Your task to perform on an android device: delete location history Image 0: 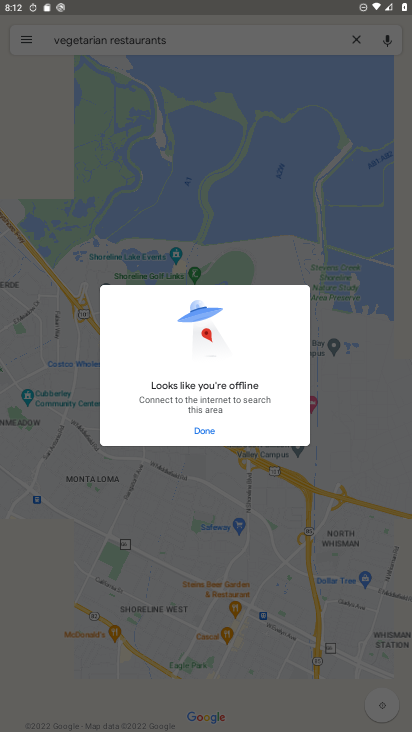
Step 0: press home button
Your task to perform on an android device: delete location history Image 1: 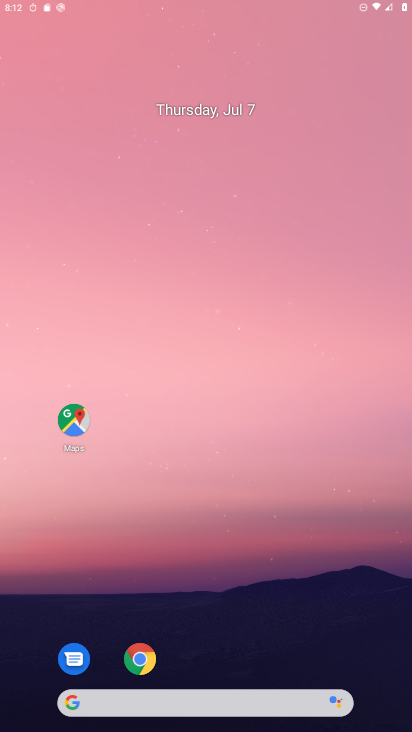
Step 1: drag from (385, 671) to (228, 15)
Your task to perform on an android device: delete location history Image 2: 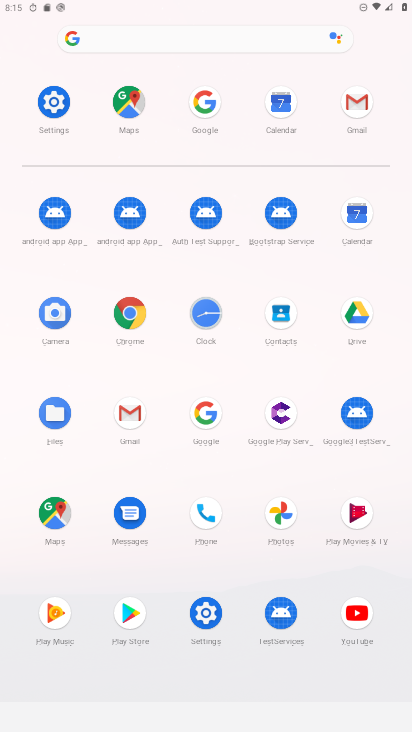
Step 2: click (201, 606)
Your task to perform on an android device: delete location history Image 3: 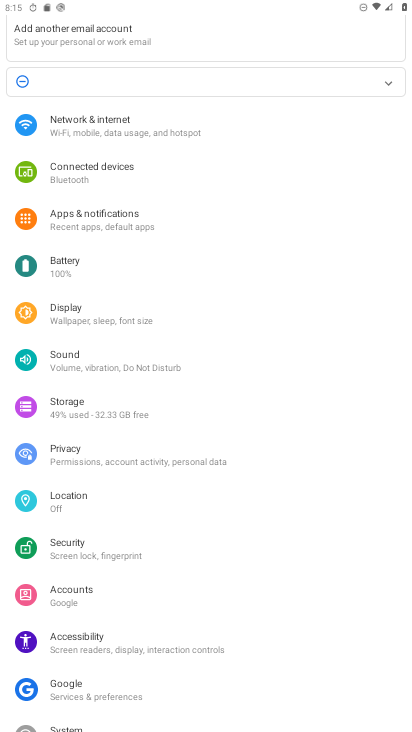
Step 3: click (63, 493)
Your task to perform on an android device: delete location history Image 4: 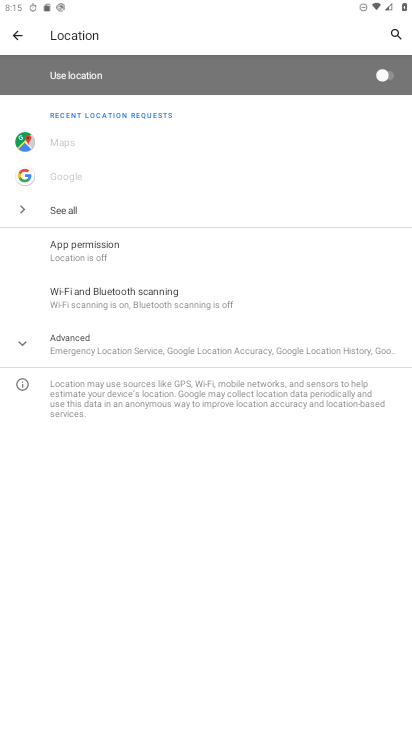
Step 4: click (62, 349)
Your task to perform on an android device: delete location history Image 5: 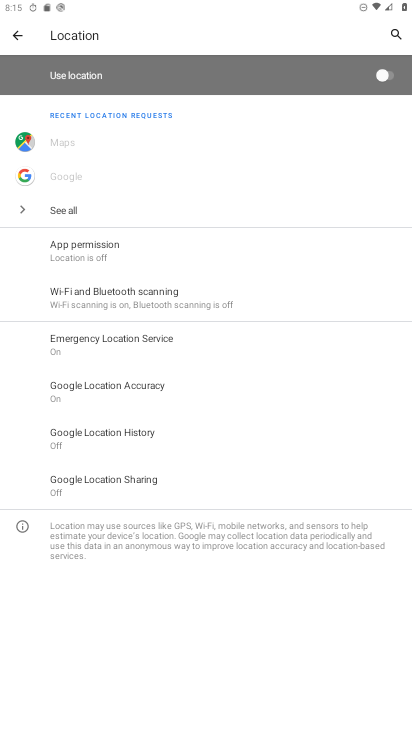
Step 5: click (144, 431)
Your task to perform on an android device: delete location history Image 6: 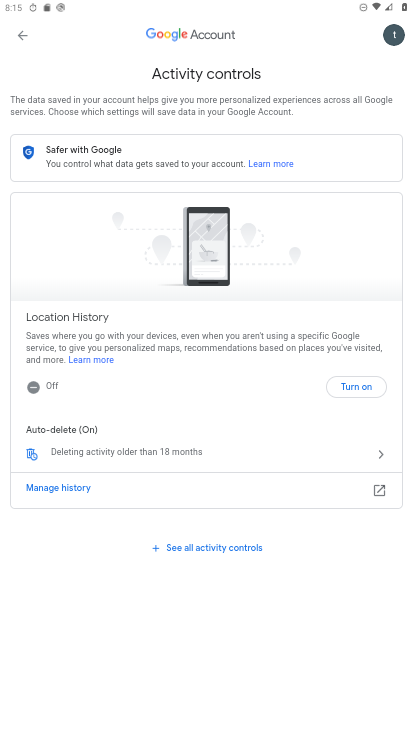
Step 6: click (127, 450)
Your task to perform on an android device: delete location history Image 7: 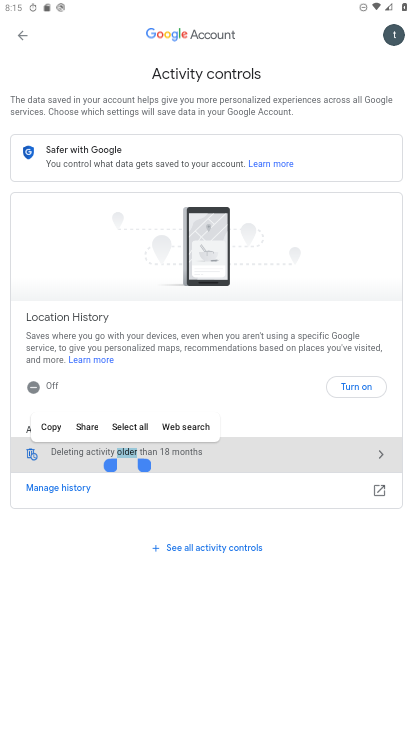
Step 7: click (223, 450)
Your task to perform on an android device: delete location history Image 8: 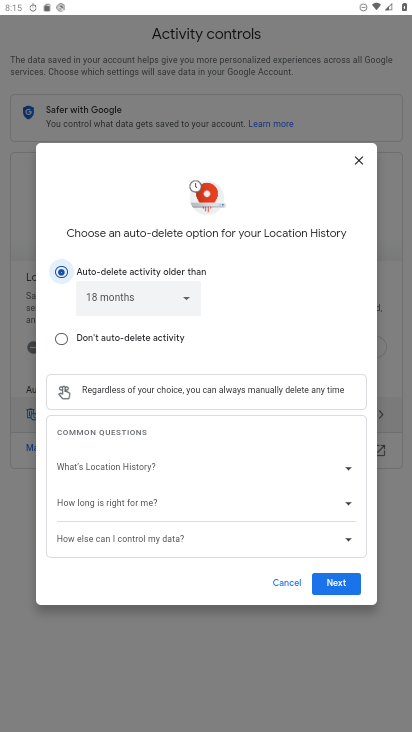
Step 8: click (340, 587)
Your task to perform on an android device: delete location history Image 9: 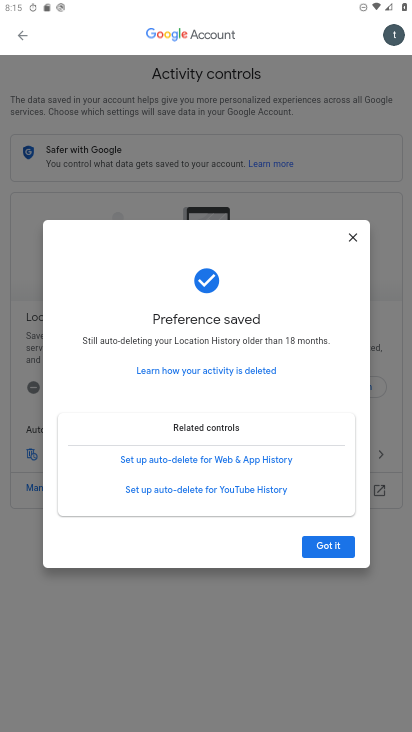
Step 9: click (324, 544)
Your task to perform on an android device: delete location history Image 10: 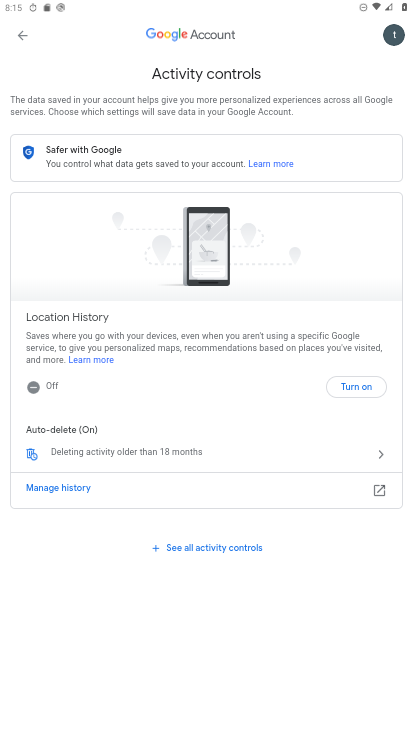
Step 10: task complete